Your task to perform on an android device: check out phone information Image 0: 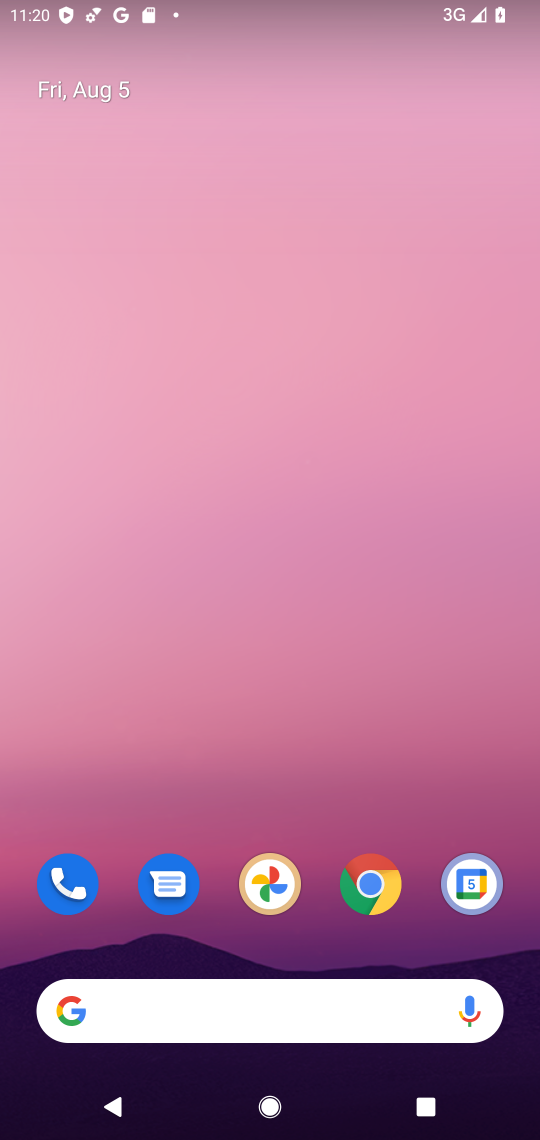
Step 0: drag from (471, 774) to (530, 185)
Your task to perform on an android device: check out phone information Image 1: 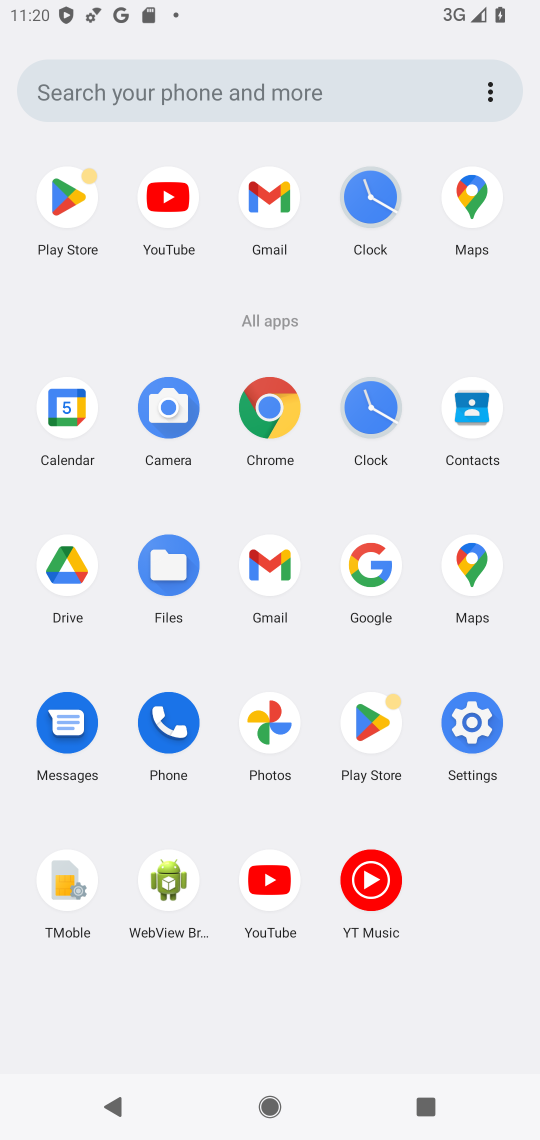
Step 1: click (472, 751)
Your task to perform on an android device: check out phone information Image 2: 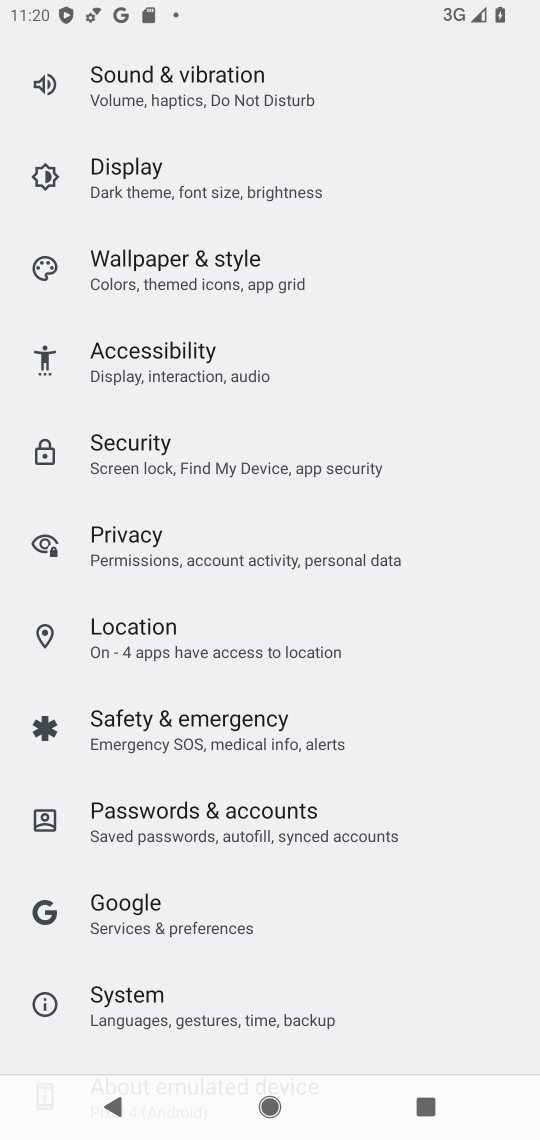
Step 2: drag from (298, 887) to (304, 287)
Your task to perform on an android device: check out phone information Image 3: 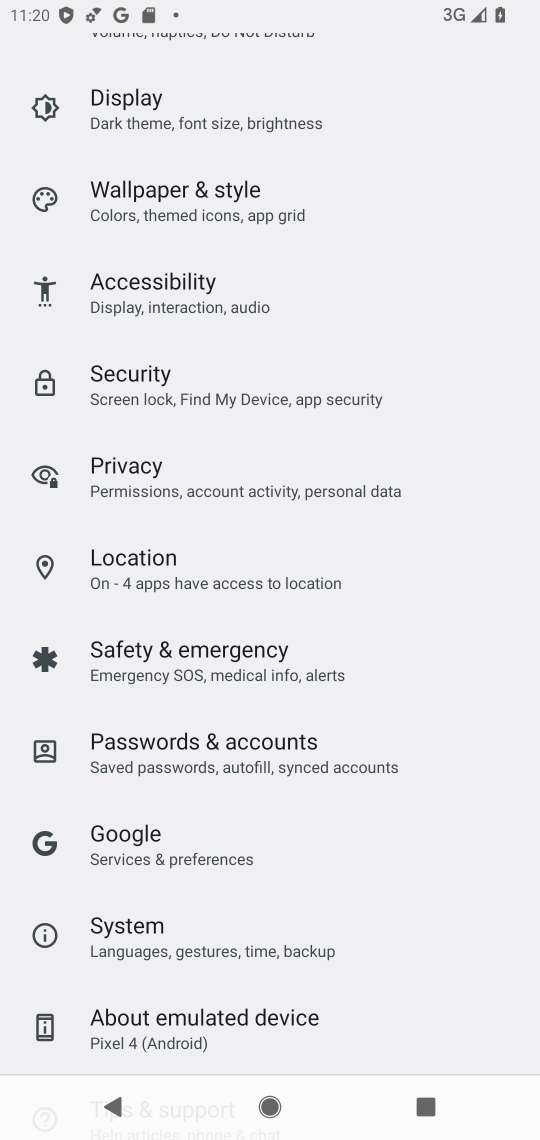
Step 3: click (246, 1003)
Your task to perform on an android device: check out phone information Image 4: 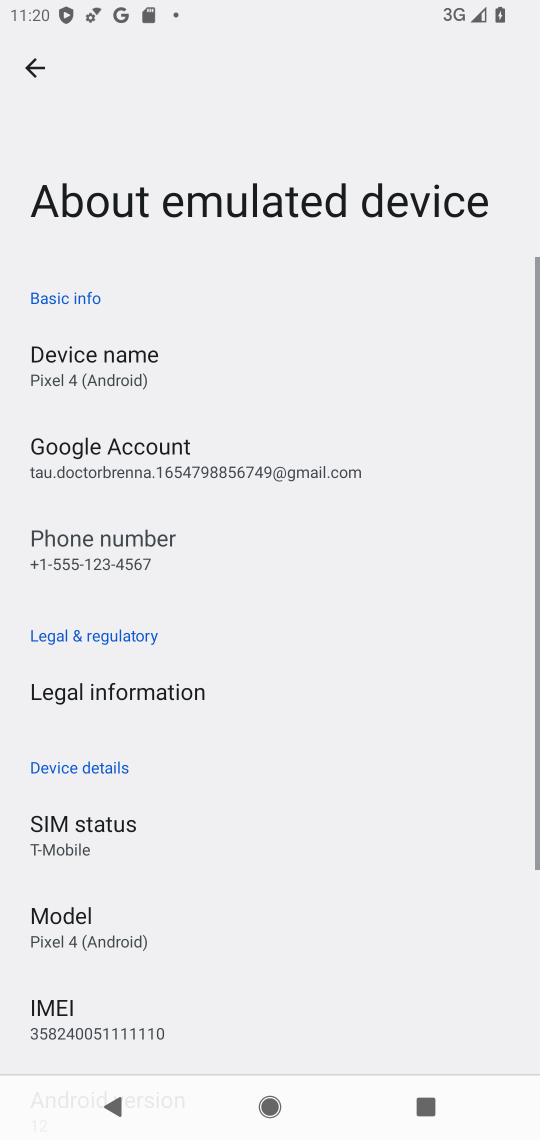
Step 4: task complete